Your task to perform on an android device: turn on sleep mode Image 0: 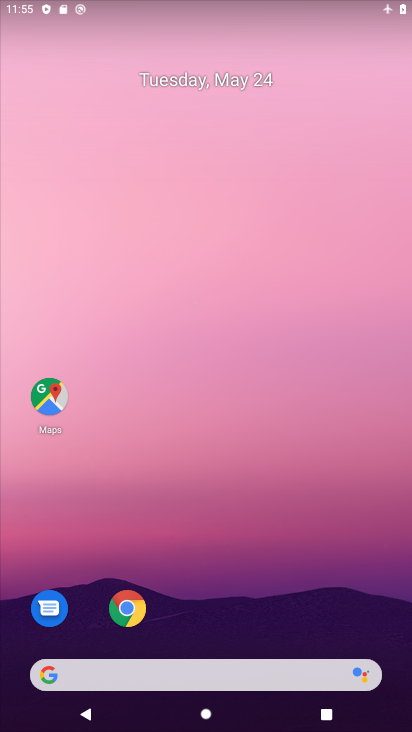
Step 0: drag from (286, 591) to (266, 241)
Your task to perform on an android device: turn on sleep mode Image 1: 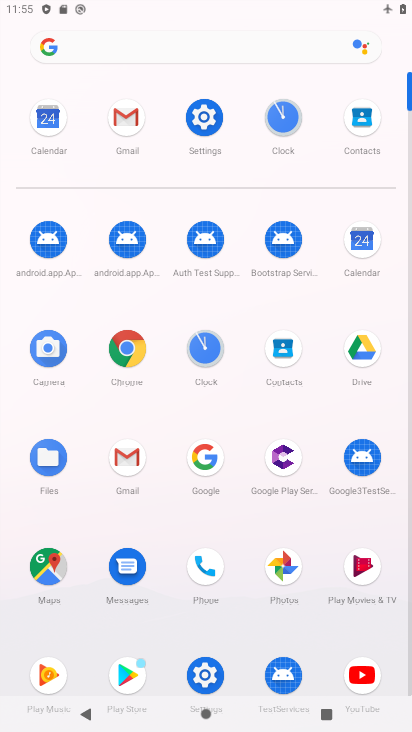
Step 1: click (198, 114)
Your task to perform on an android device: turn on sleep mode Image 2: 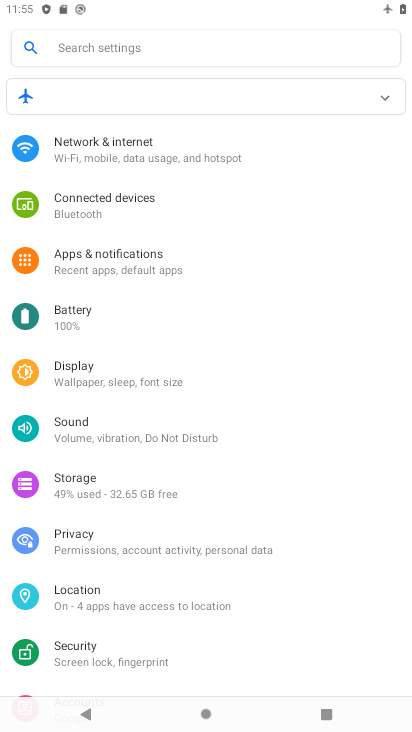
Step 2: click (268, 150)
Your task to perform on an android device: turn on sleep mode Image 3: 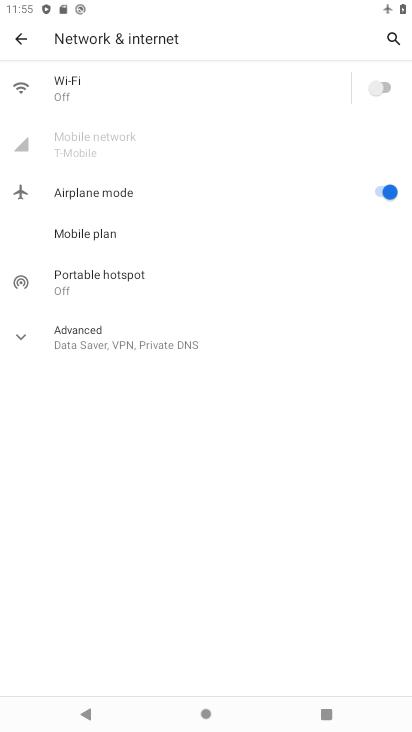
Step 3: click (380, 172)
Your task to perform on an android device: turn on sleep mode Image 4: 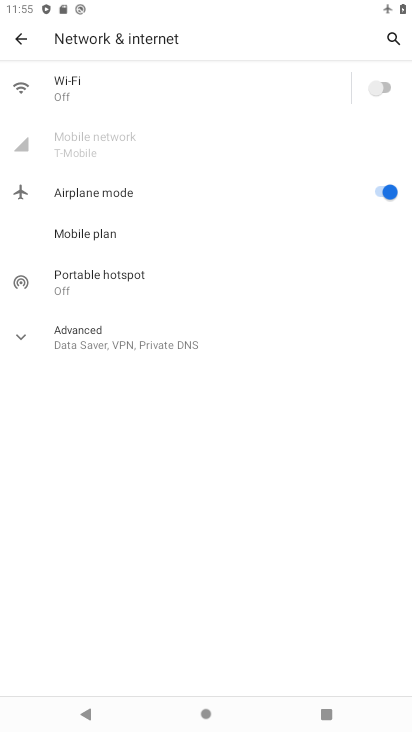
Step 4: click (377, 180)
Your task to perform on an android device: turn on sleep mode Image 5: 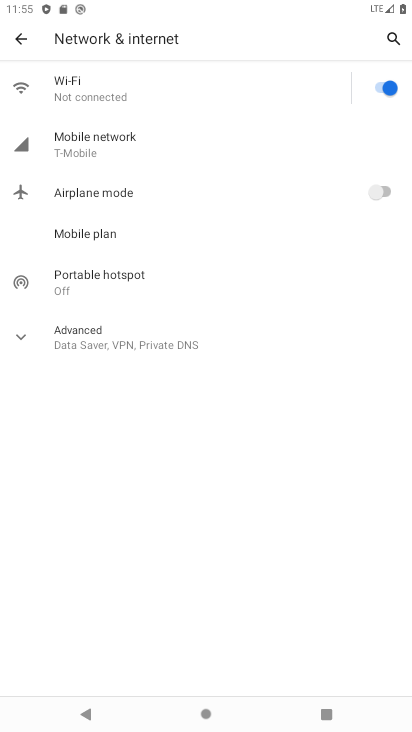
Step 5: press home button
Your task to perform on an android device: turn on sleep mode Image 6: 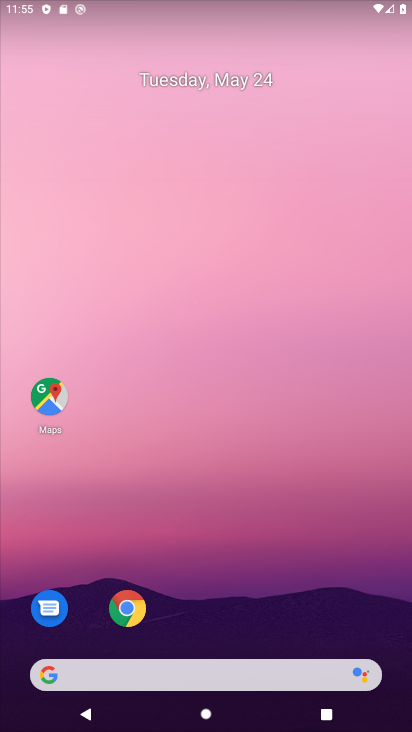
Step 6: drag from (239, 620) to (290, 148)
Your task to perform on an android device: turn on sleep mode Image 7: 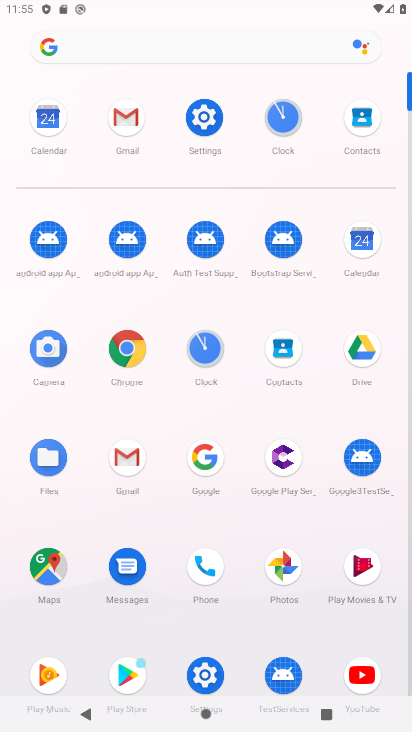
Step 7: click (211, 131)
Your task to perform on an android device: turn on sleep mode Image 8: 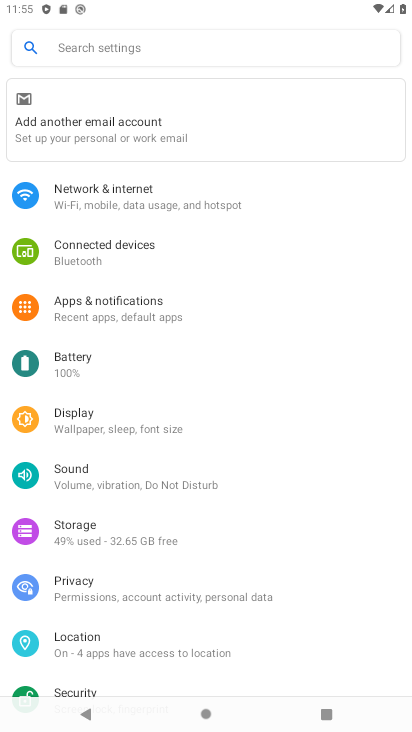
Step 8: click (181, 438)
Your task to perform on an android device: turn on sleep mode Image 9: 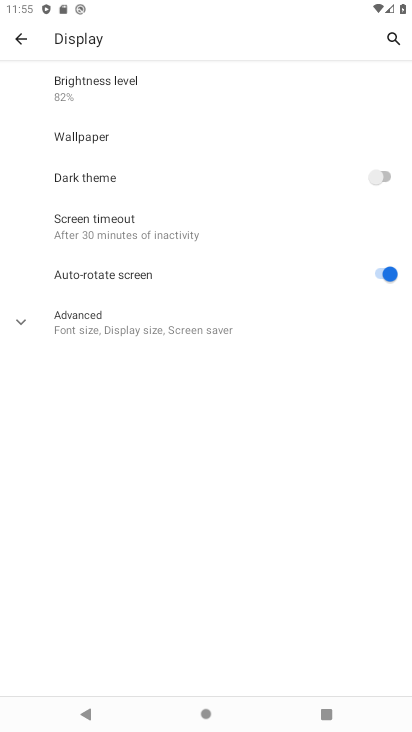
Step 9: click (180, 233)
Your task to perform on an android device: turn on sleep mode Image 10: 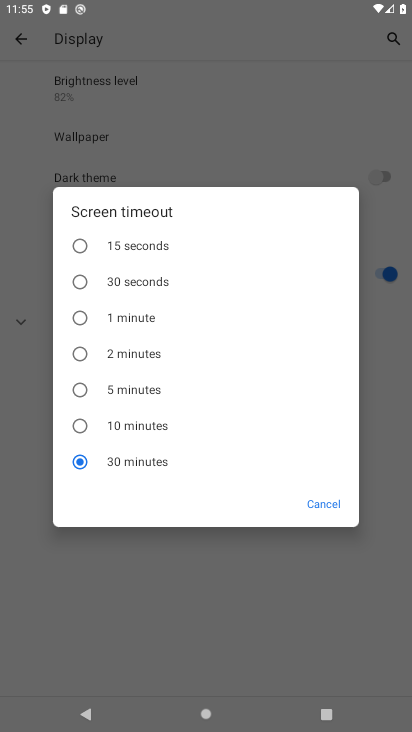
Step 10: click (180, 272)
Your task to perform on an android device: turn on sleep mode Image 11: 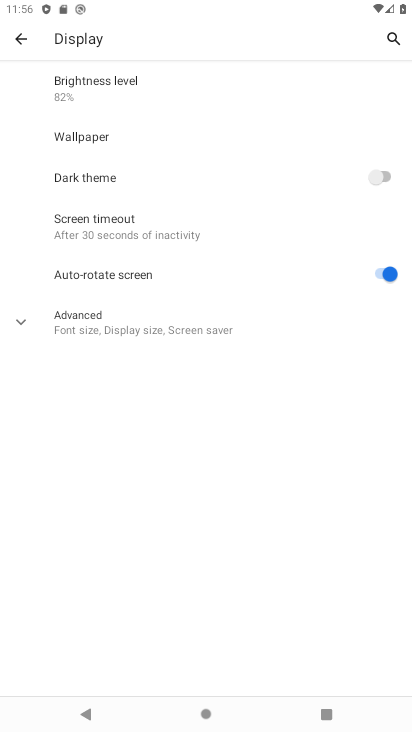
Step 11: task complete